Your task to perform on an android device: Do I have any events today? Image 0: 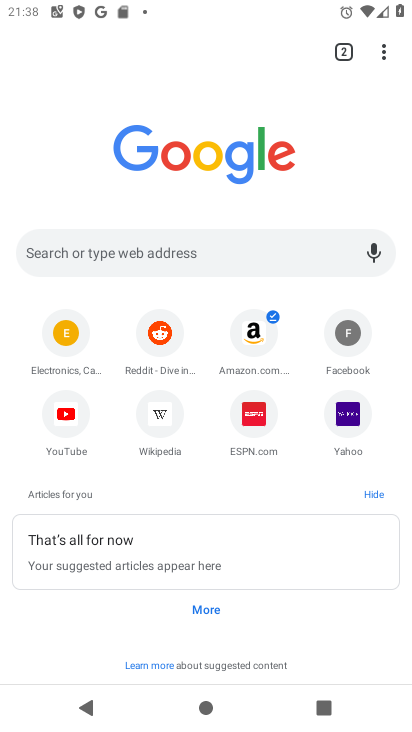
Step 0: press home button
Your task to perform on an android device: Do I have any events today? Image 1: 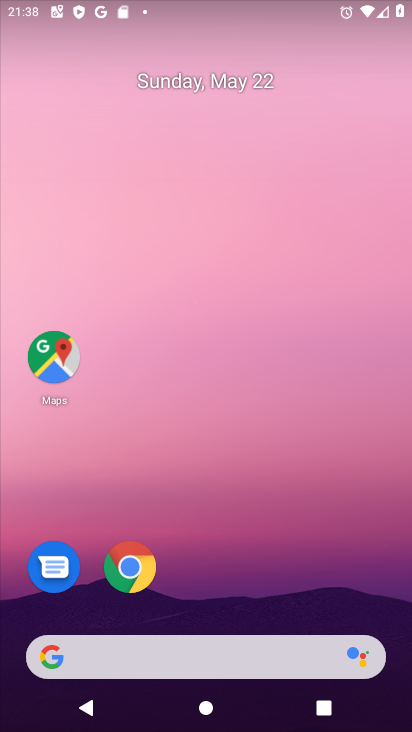
Step 1: drag from (230, 573) to (290, 34)
Your task to perform on an android device: Do I have any events today? Image 2: 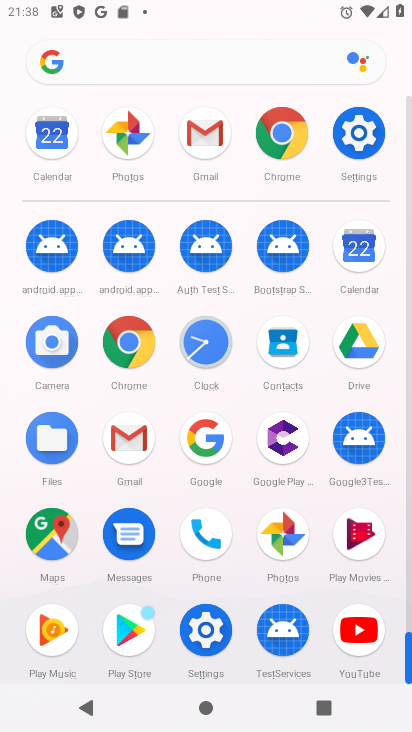
Step 2: click (380, 244)
Your task to perform on an android device: Do I have any events today? Image 3: 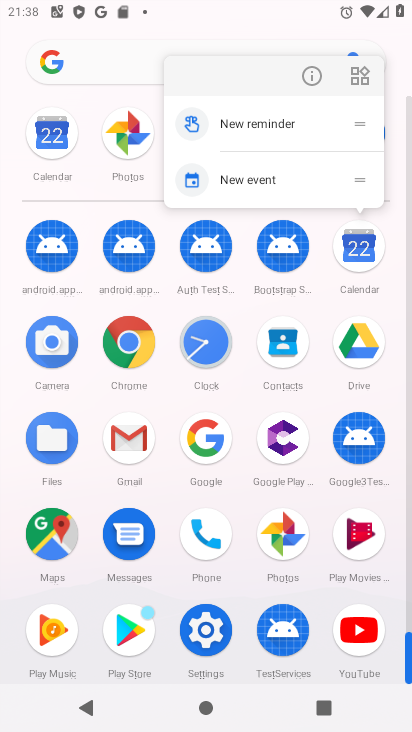
Step 3: click (365, 230)
Your task to perform on an android device: Do I have any events today? Image 4: 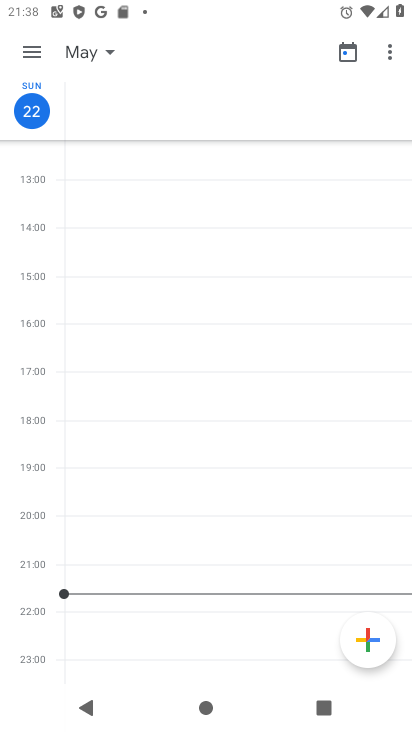
Step 4: click (31, 58)
Your task to perform on an android device: Do I have any events today? Image 5: 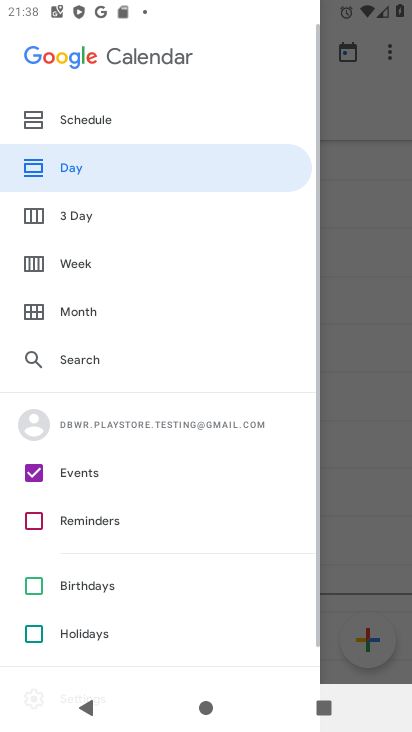
Step 5: task complete